Your task to perform on an android device: uninstall "Adobe Express: Graphic Design" Image 0: 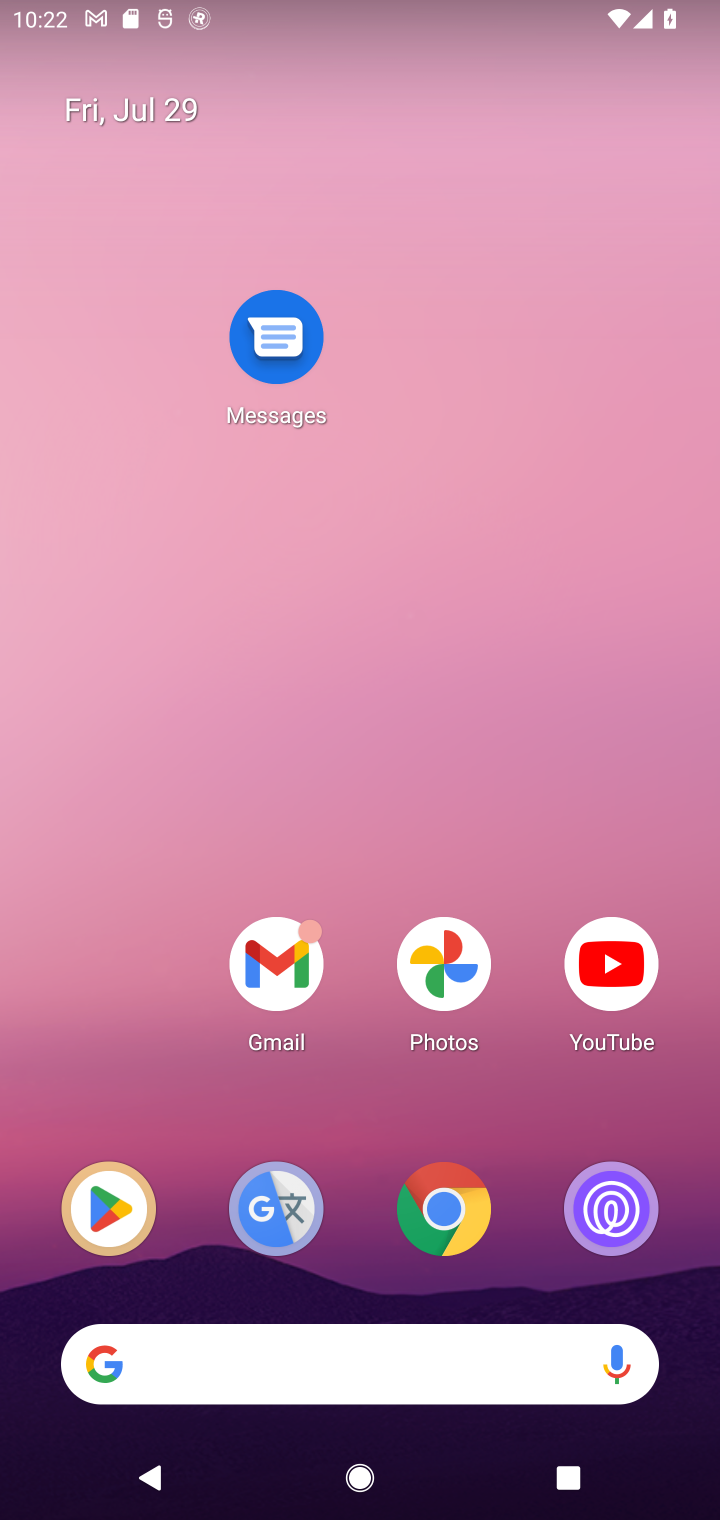
Step 0: drag from (175, 1344) to (211, 294)
Your task to perform on an android device: uninstall "Adobe Express: Graphic Design" Image 1: 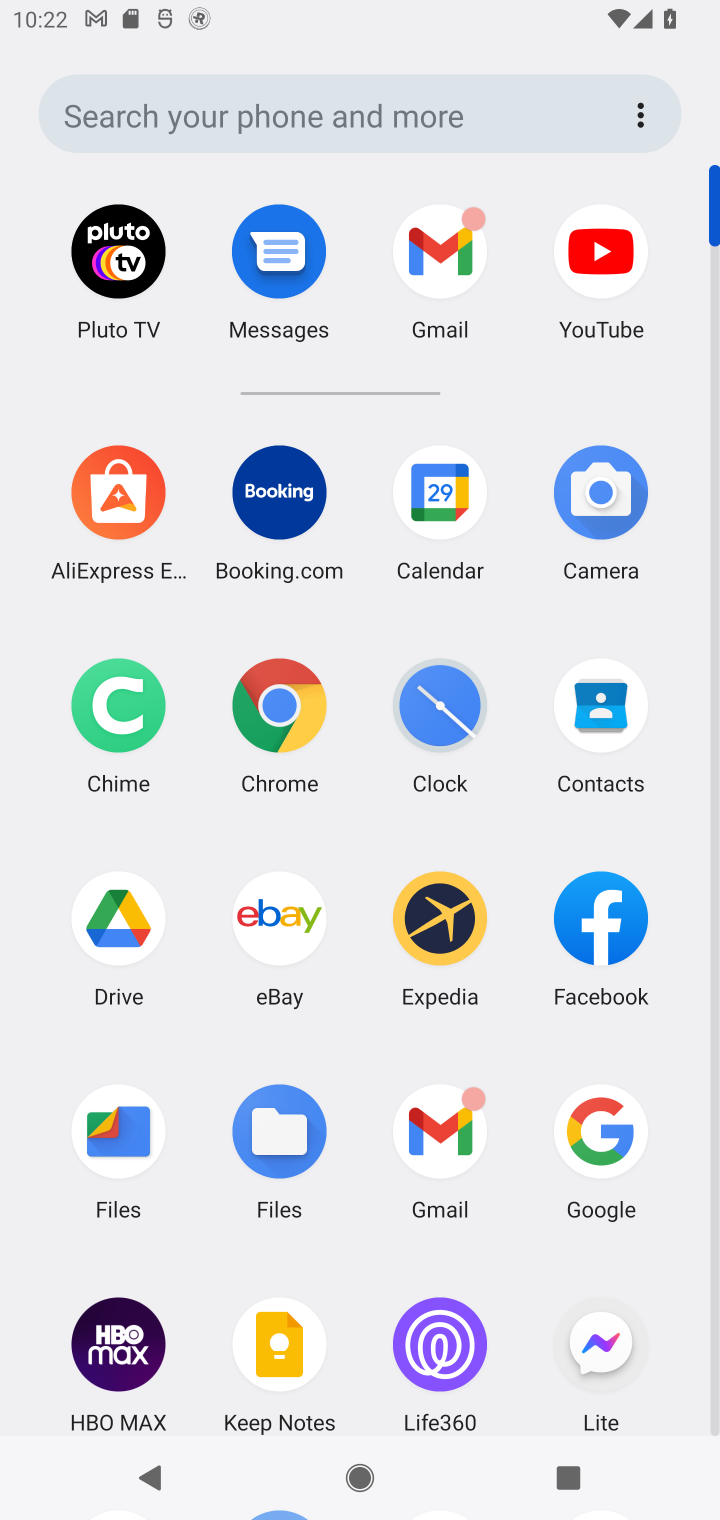
Step 1: drag from (363, 1311) to (345, 312)
Your task to perform on an android device: uninstall "Adobe Express: Graphic Design" Image 2: 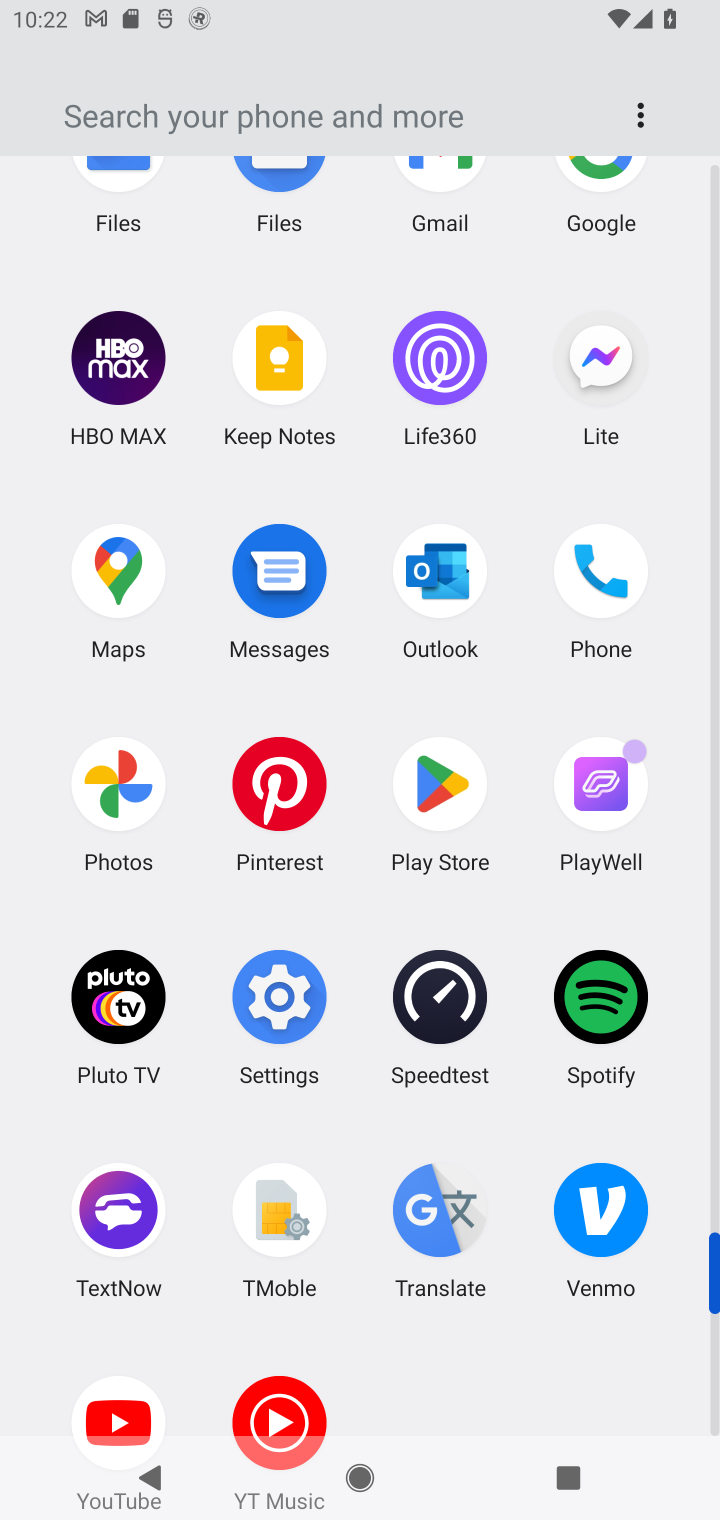
Step 2: click (438, 793)
Your task to perform on an android device: uninstall "Adobe Express: Graphic Design" Image 3: 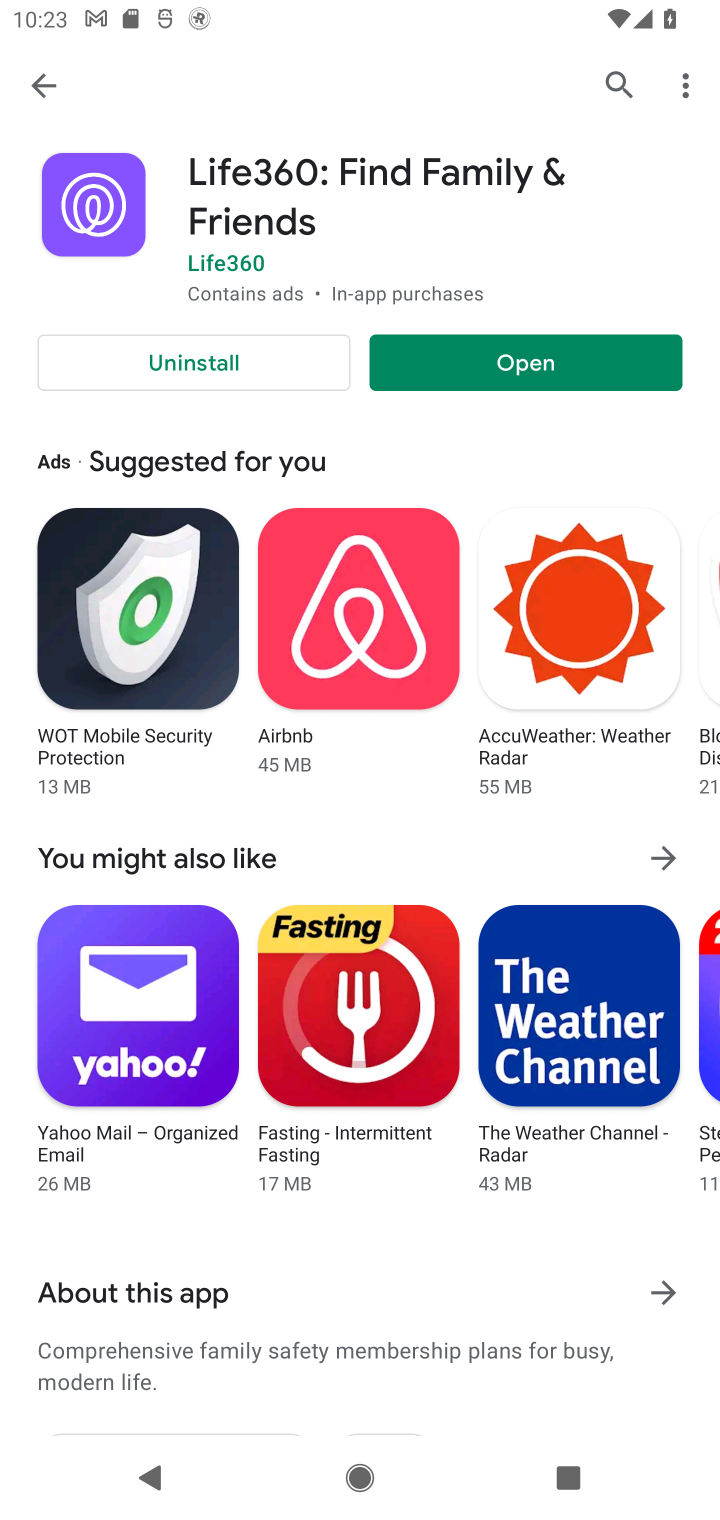
Step 3: click (606, 80)
Your task to perform on an android device: uninstall "Adobe Express: Graphic Design" Image 4: 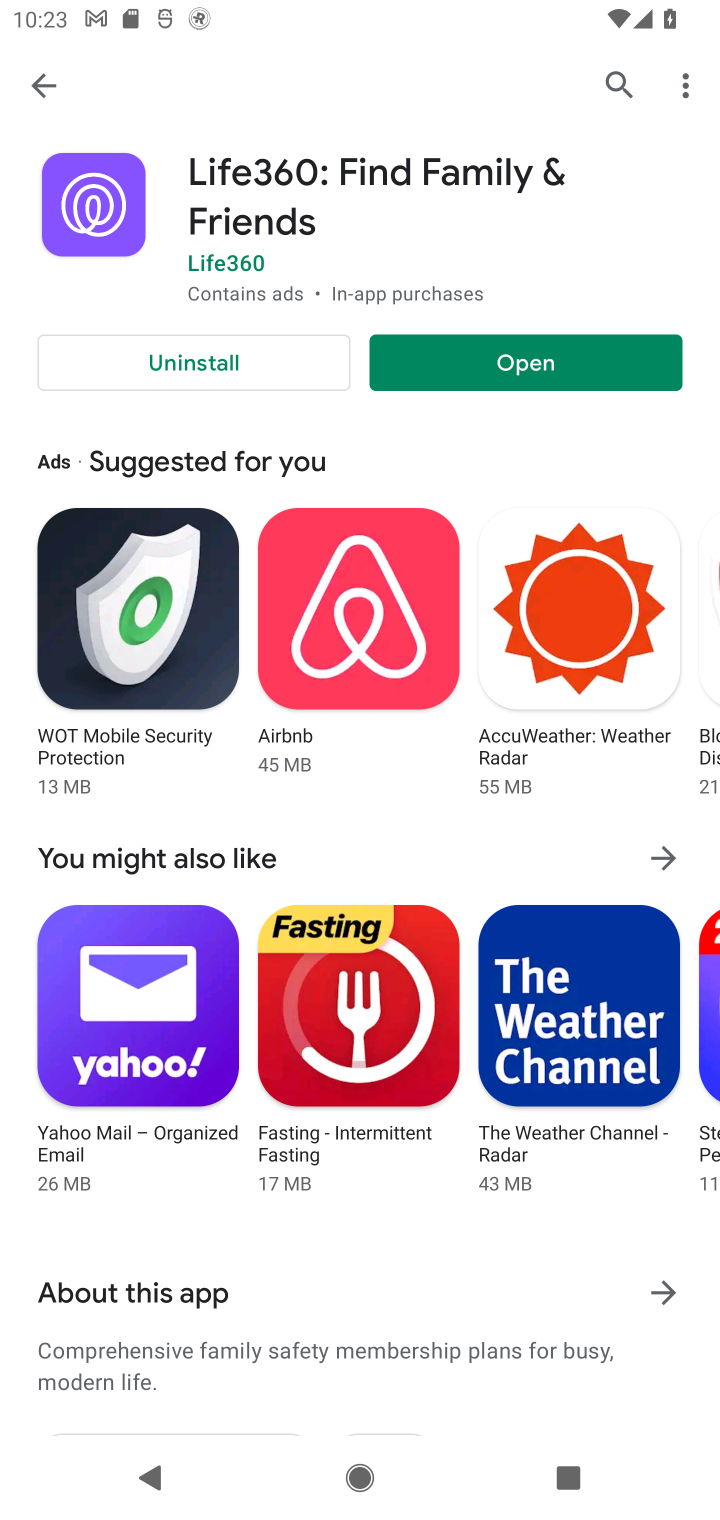
Step 4: click (383, 69)
Your task to perform on an android device: uninstall "Adobe Express: Graphic Design" Image 5: 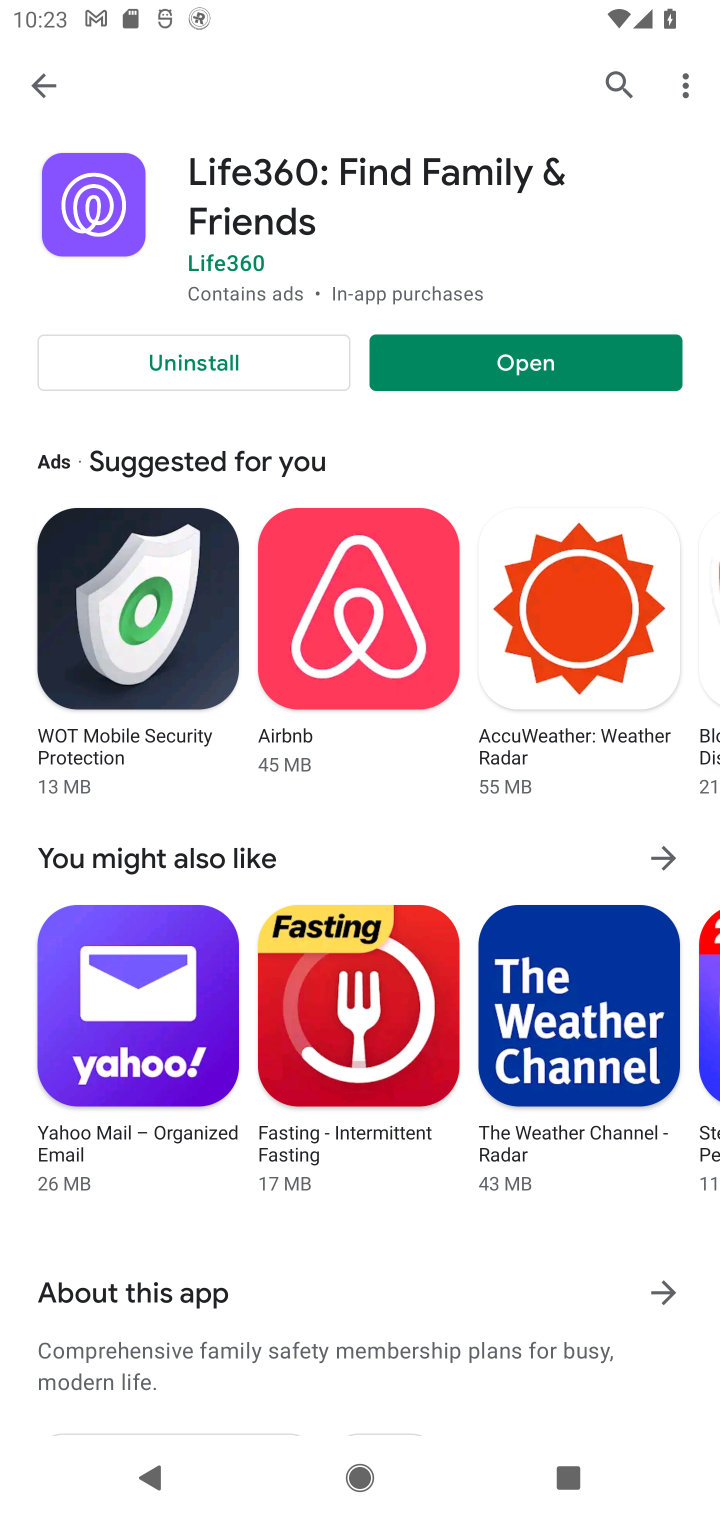
Step 5: click (634, 86)
Your task to perform on an android device: uninstall "Adobe Express: Graphic Design" Image 6: 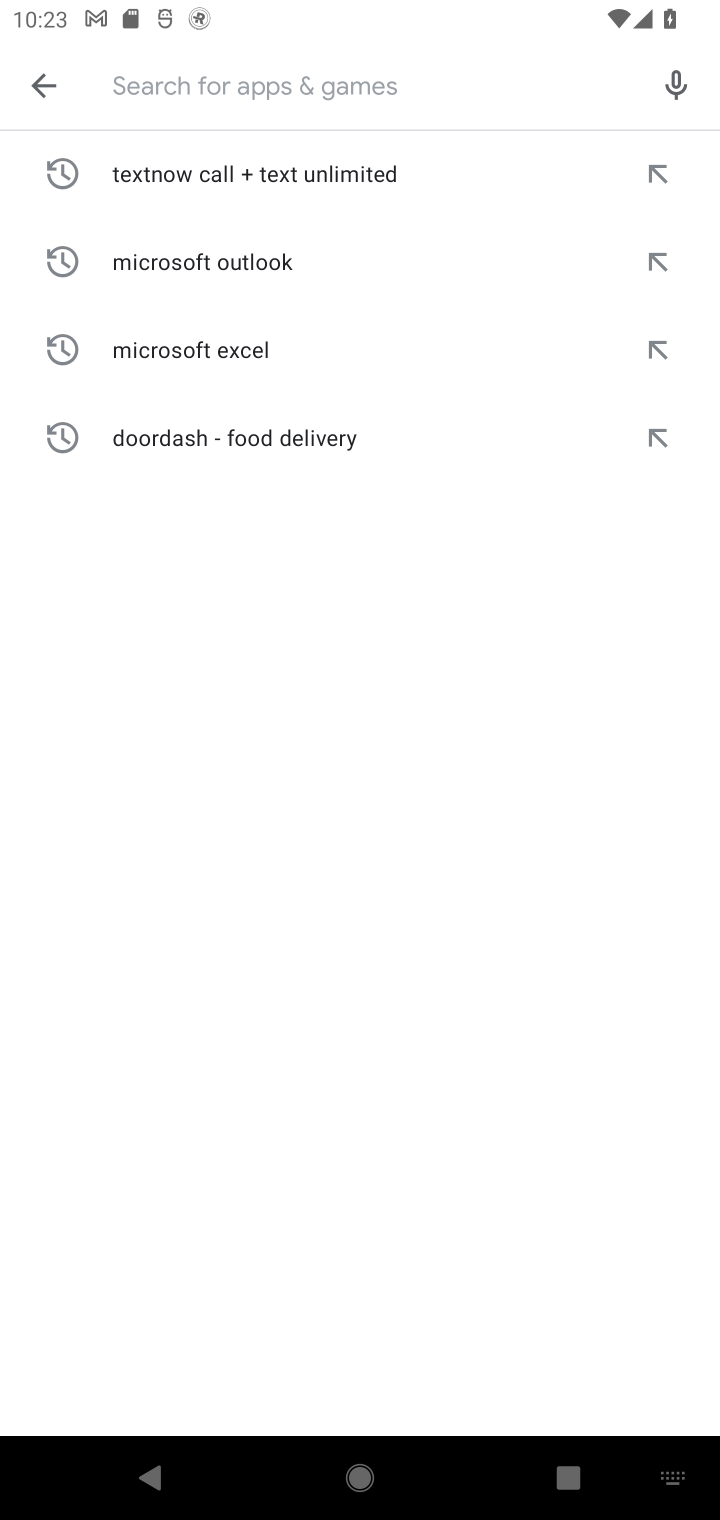
Step 6: click (287, 87)
Your task to perform on an android device: uninstall "Adobe Express: Graphic Design" Image 7: 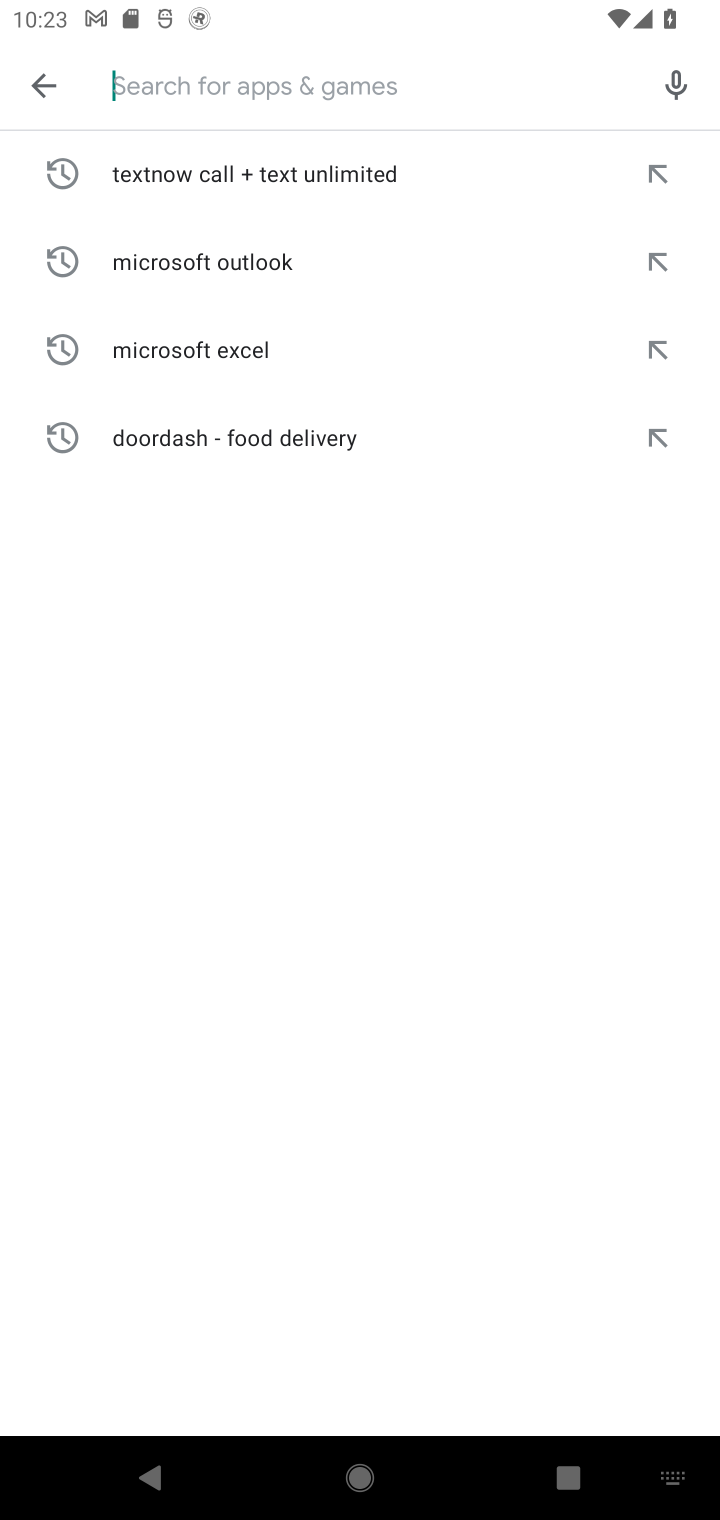
Step 7: type "Adobe Express: Graphic Design"
Your task to perform on an android device: uninstall "Adobe Express: Graphic Design" Image 8: 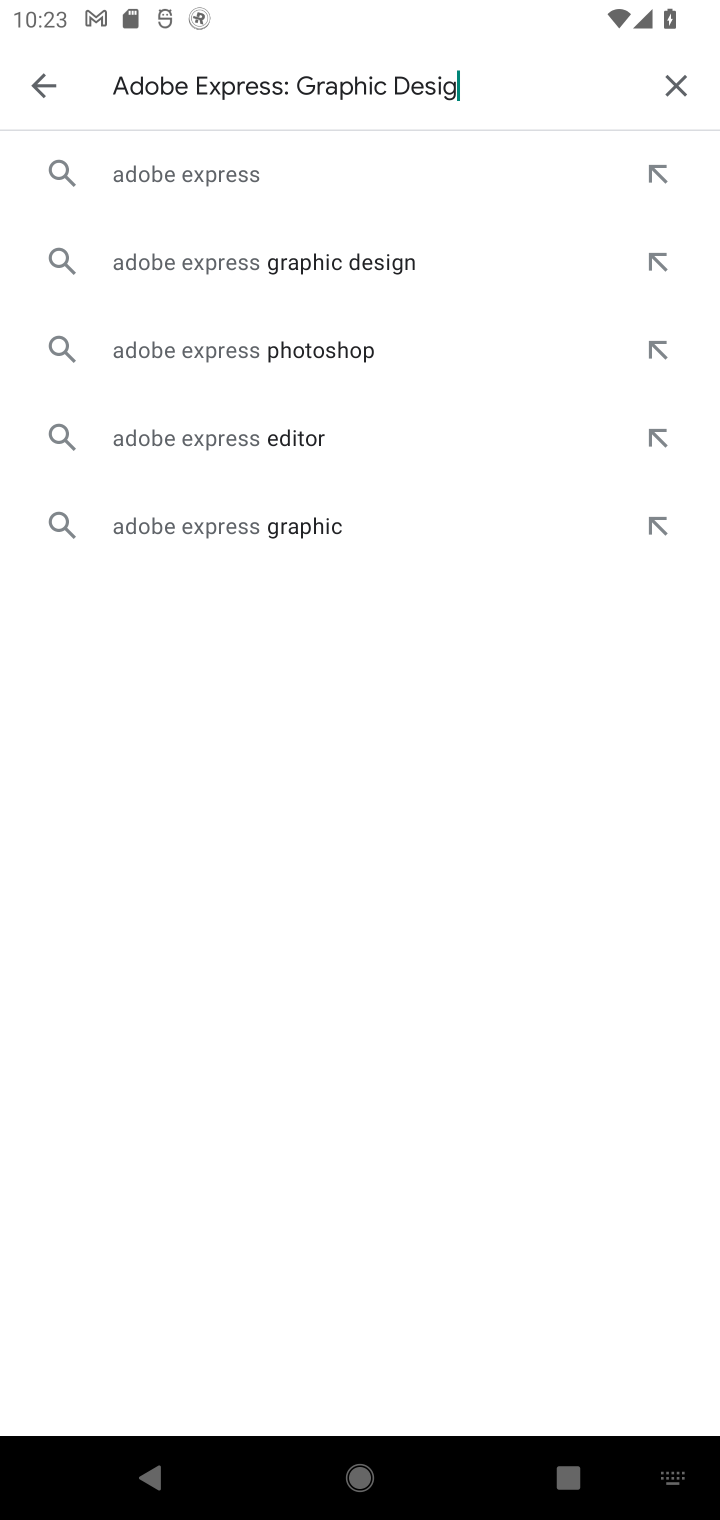
Step 8: type ""
Your task to perform on an android device: uninstall "Adobe Express: Graphic Design" Image 9: 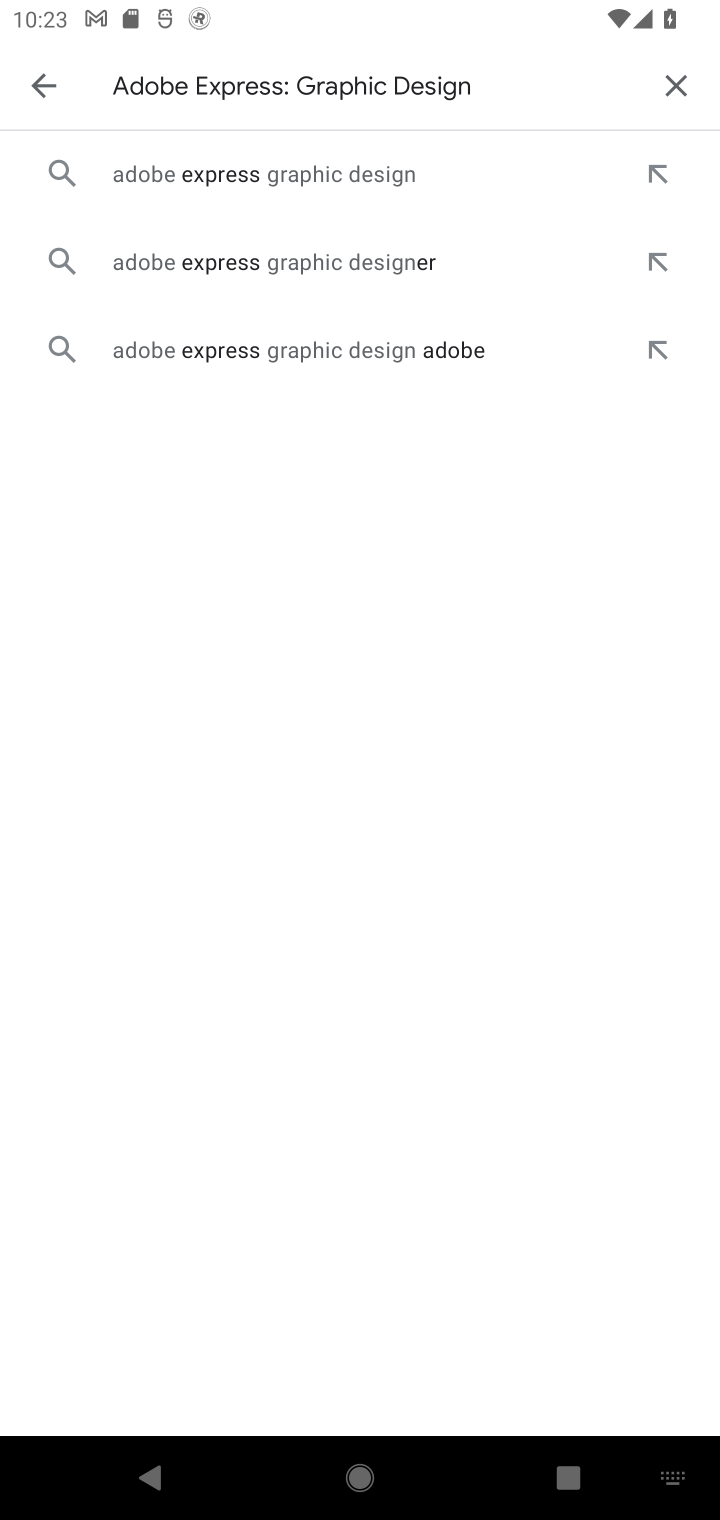
Step 9: click (384, 175)
Your task to perform on an android device: uninstall "Adobe Express: Graphic Design" Image 10: 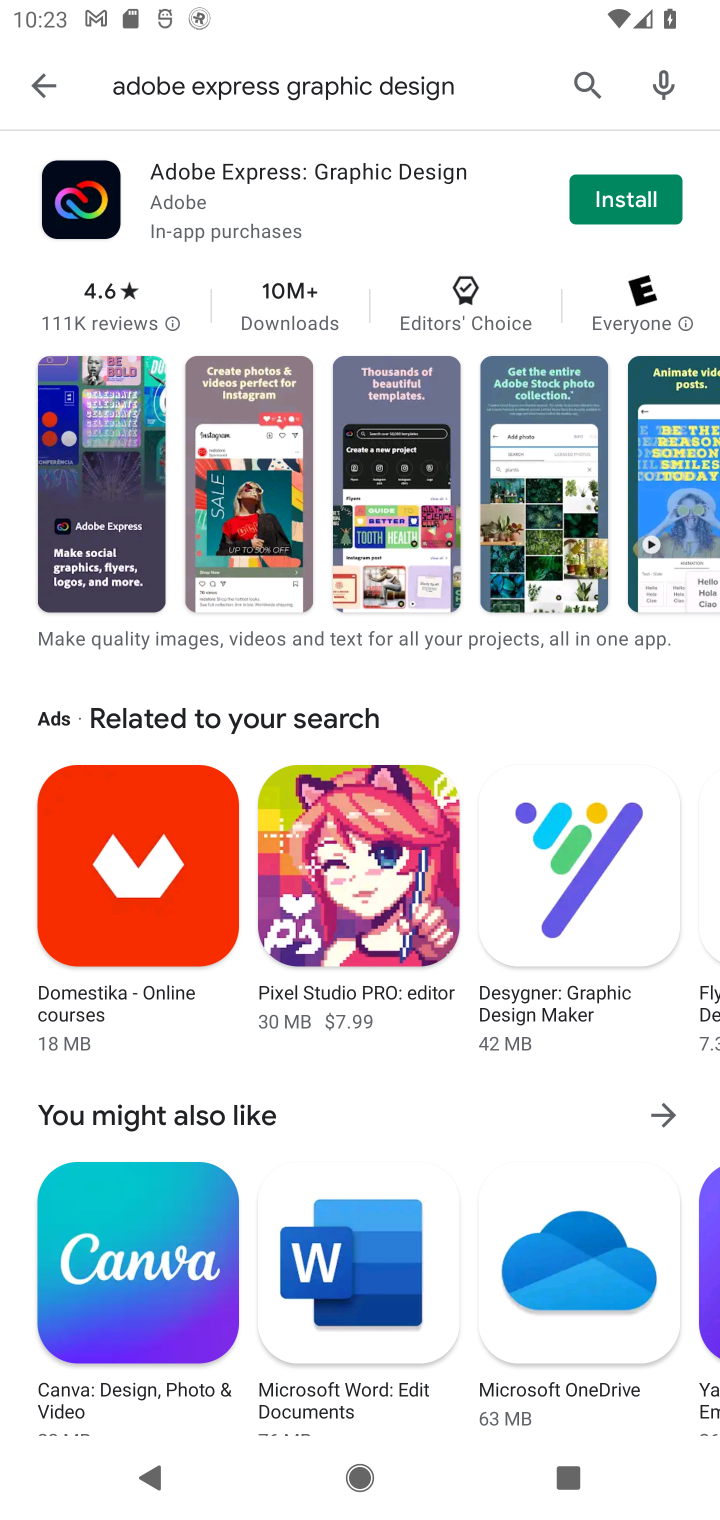
Step 10: task complete